Your task to perform on an android device: uninstall "Spotify: Music and Podcasts" Image 0: 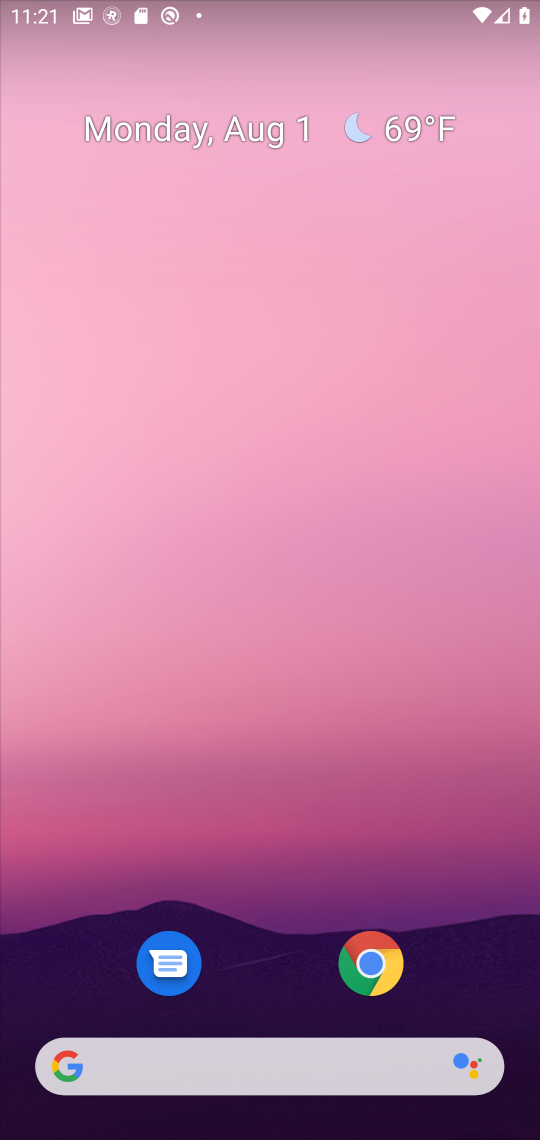
Step 0: drag from (275, 756) to (305, 9)
Your task to perform on an android device: uninstall "Spotify: Music and Podcasts" Image 1: 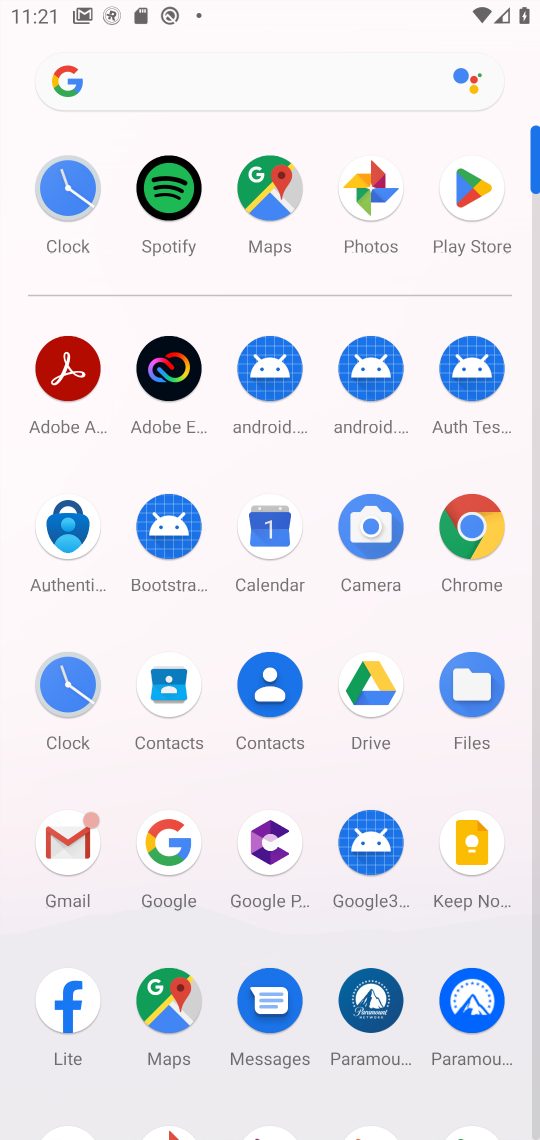
Step 1: click (470, 197)
Your task to perform on an android device: uninstall "Spotify: Music and Podcasts" Image 2: 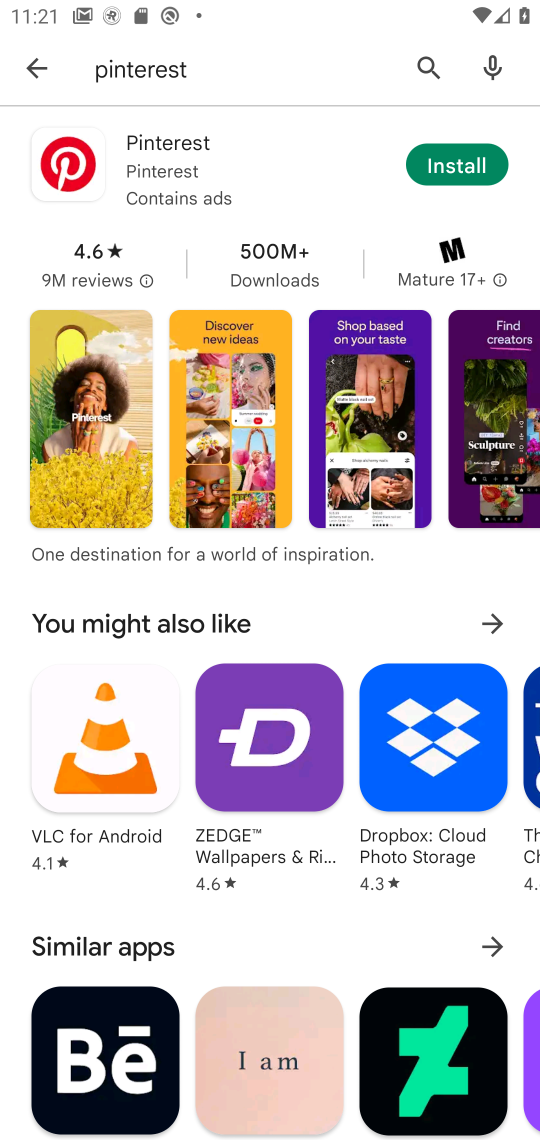
Step 2: click (215, 70)
Your task to perform on an android device: uninstall "Spotify: Music and Podcasts" Image 3: 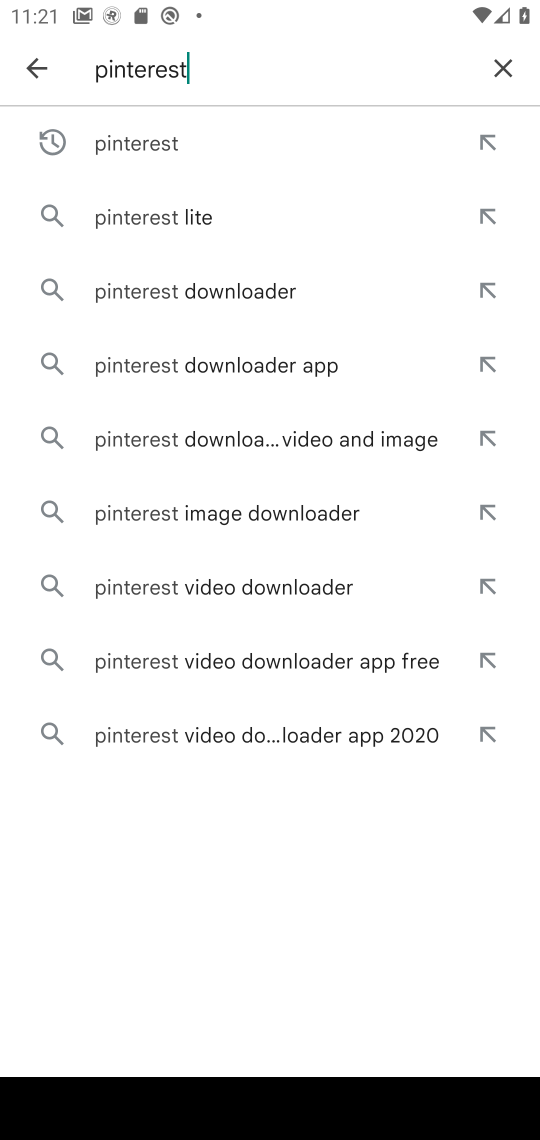
Step 3: click (496, 57)
Your task to perform on an android device: uninstall "Spotify: Music and Podcasts" Image 4: 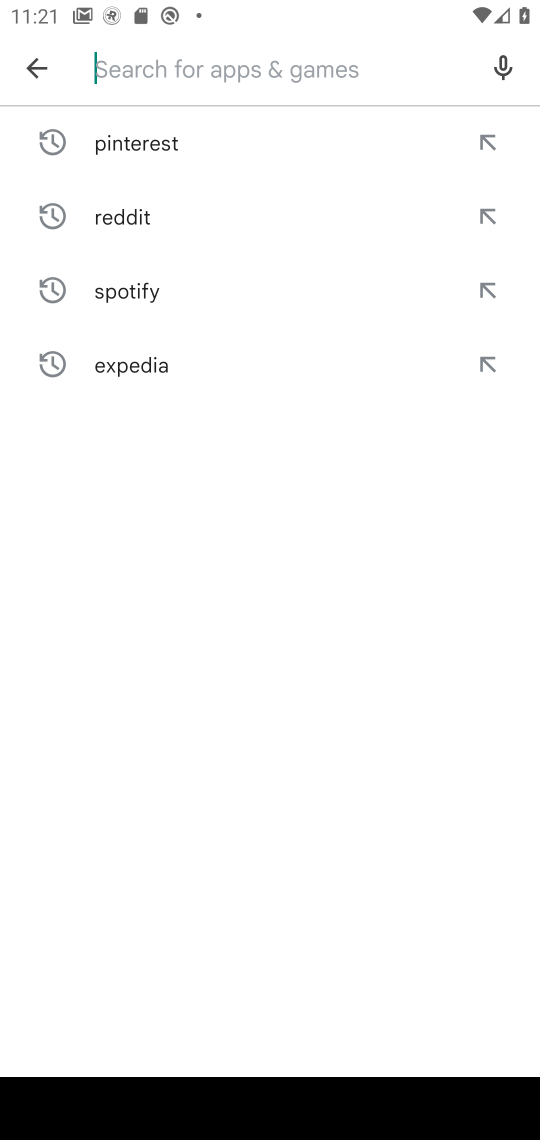
Step 4: type "spotify"
Your task to perform on an android device: uninstall "Spotify: Music and Podcasts" Image 5: 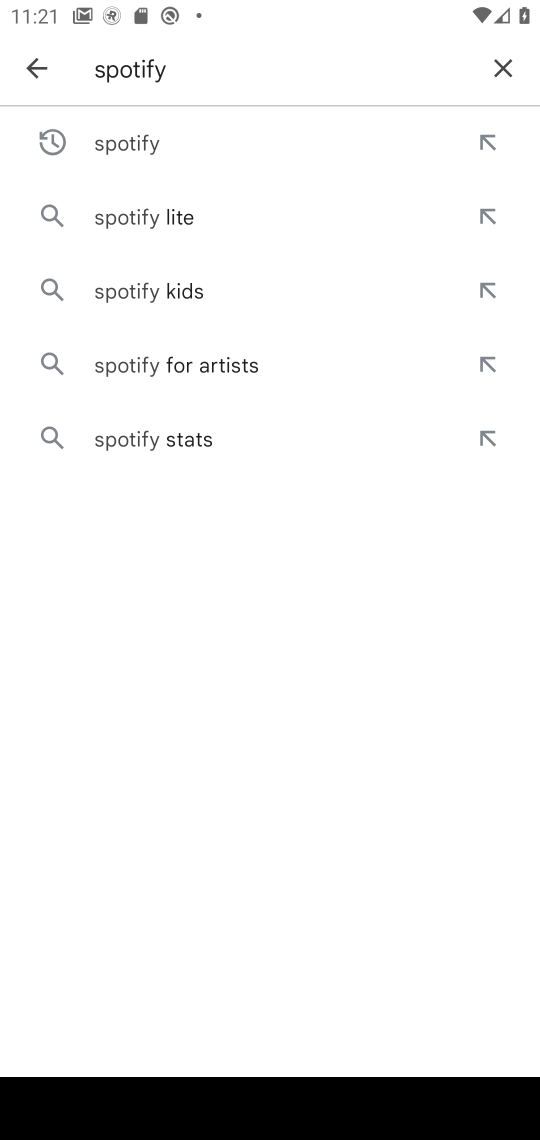
Step 5: click (137, 135)
Your task to perform on an android device: uninstall "Spotify: Music and Podcasts" Image 6: 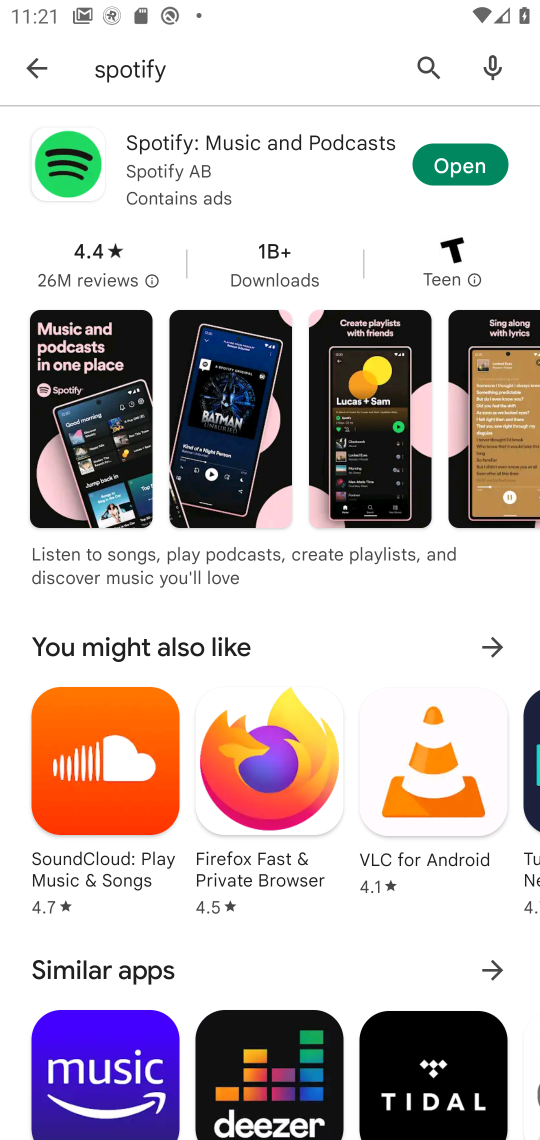
Step 6: click (94, 170)
Your task to perform on an android device: uninstall "Spotify: Music and Podcasts" Image 7: 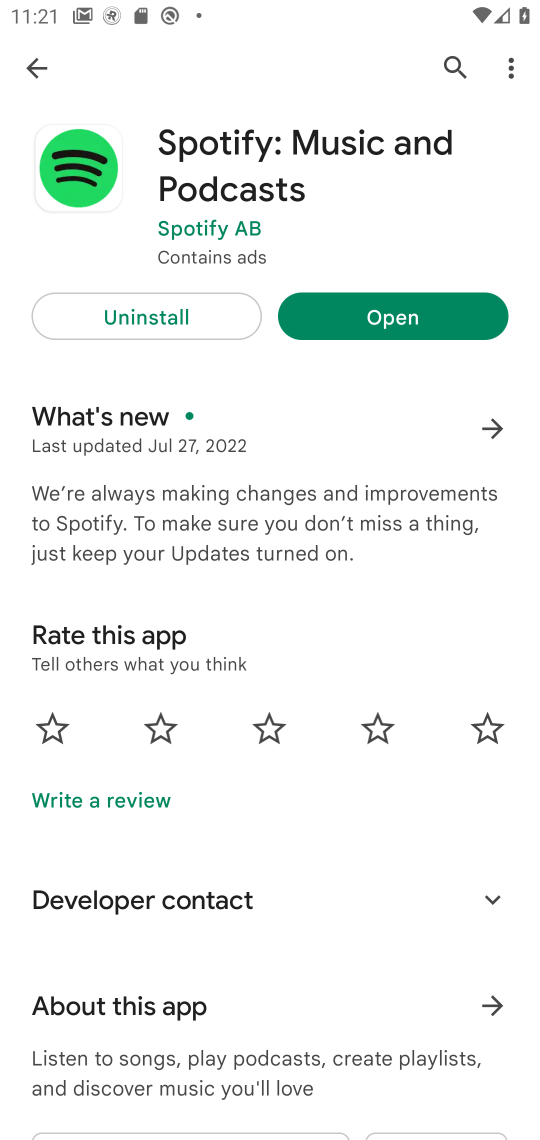
Step 7: click (189, 327)
Your task to perform on an android device: uninstall "Spotify: Music and Podcasts" Image 8: 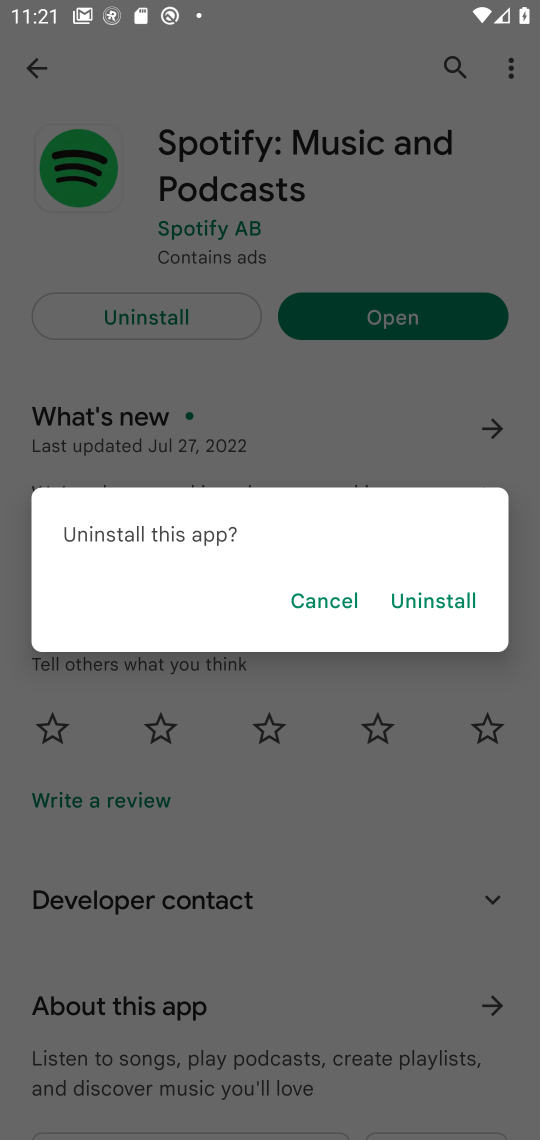
Step 8: click (426, 599)
Your task to perform on an android device: uninstall "Spotify: Music and Podcasts" Image 9: 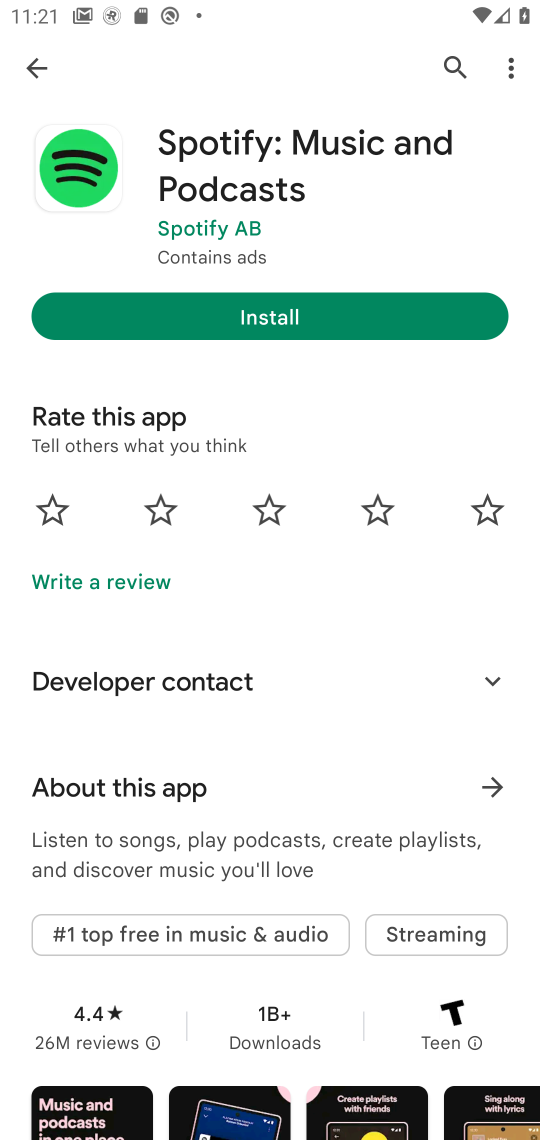
Step 9: task complete